Your task to perform on an android device: open sync settings in chrome Image 0: 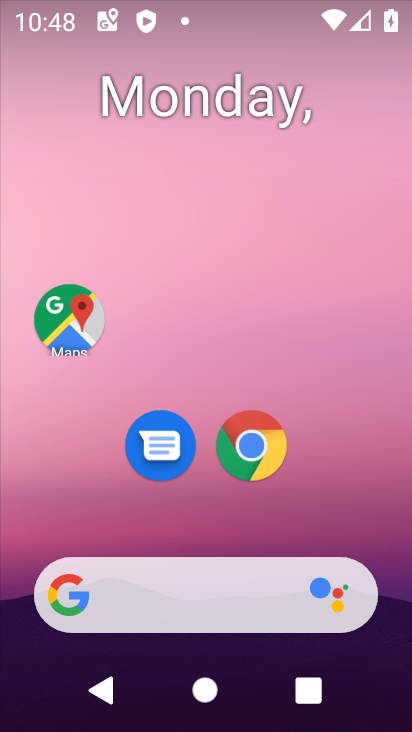
Step 0: click (246, 440)
Your task to perform on an android device: open sync settings in chrome Image 1: 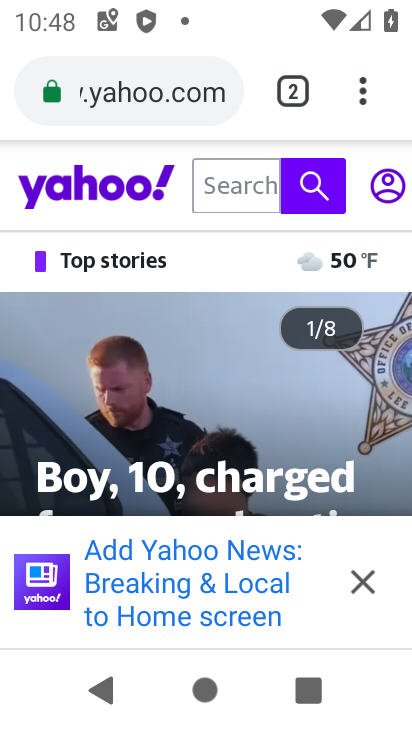
Step 1: drag from (359, 85) to (122, 468)
Your task to perform on an android device: open sync settings in chrome Image 2: 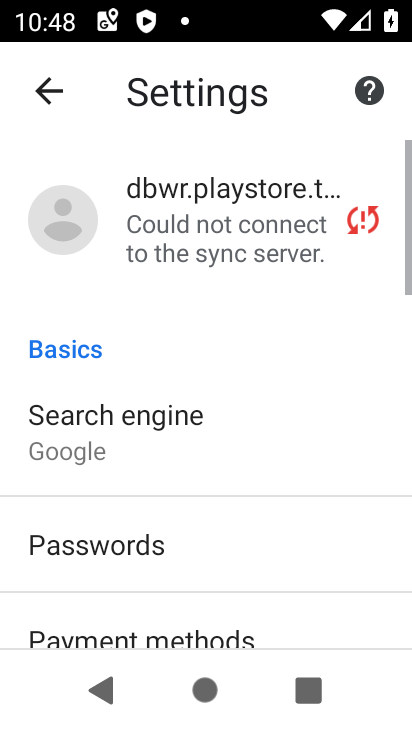
Step 2: click (208, 200)
Your task to perform on an android device: open sync settings in chrome Image 3: 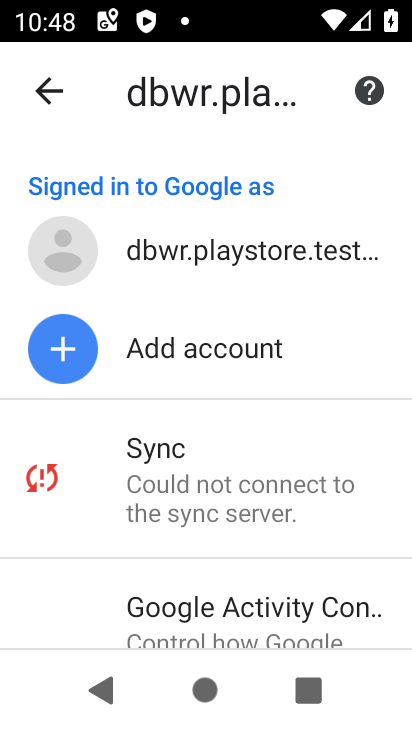
Step 3: task complete